Your task to perform on an android device: Do I have any events today? Image 0: 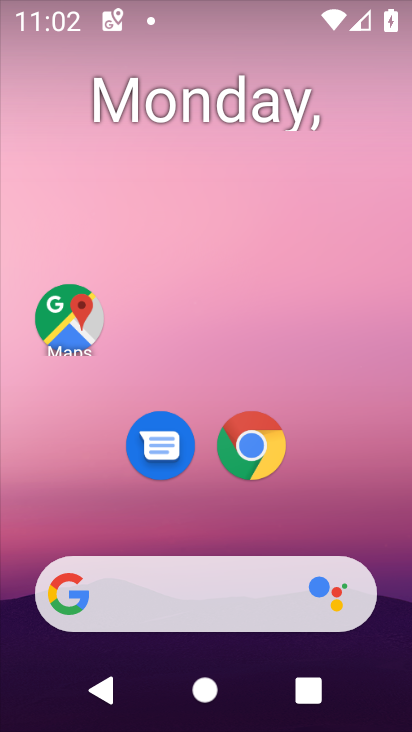
Step 0: drag from (246, 686) to (279, 14)
Your task to perform on an android device: Do I have any events today? Image 1: 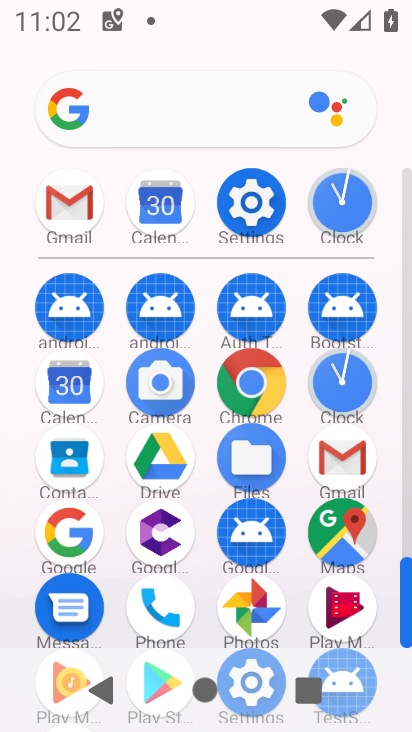
Step 1: click (77, 370)
Your task to perform on an android device: Do I have any events today? Image 2: 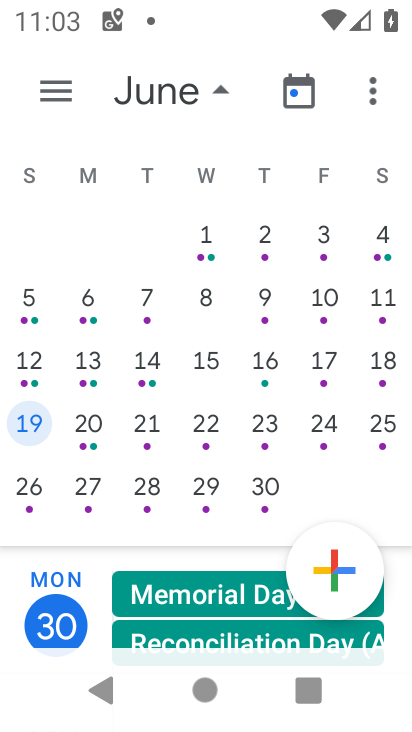
Step 2: task complete